Your task to perform on an android device: Check the weather Image 0: 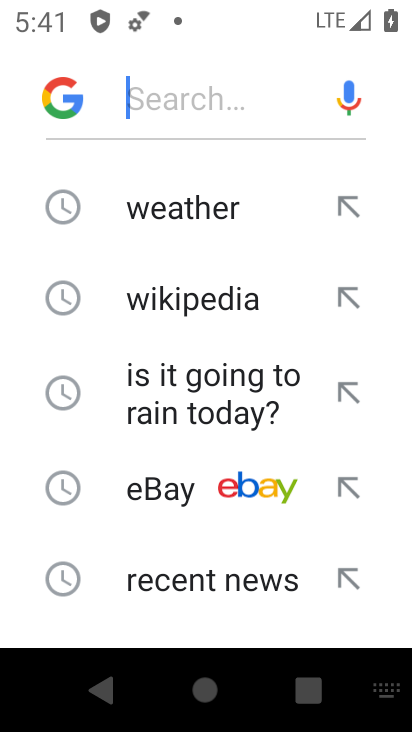
Step 0: press home button
Your task to perform on an android device: Check the weather Image 1: 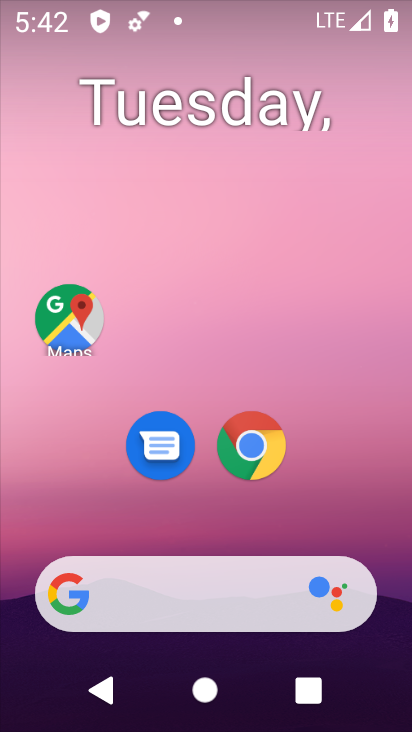
Step 1: drag from (321, 526) to (351, 8)
Your task to perform on an android device: Check the weather Image 2: 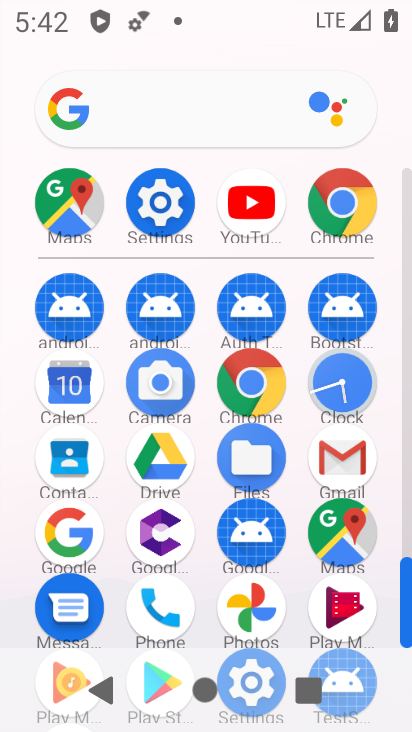
Step 2: click (334, 201)
Your task to perform on an android device: Check the weather Image 3: 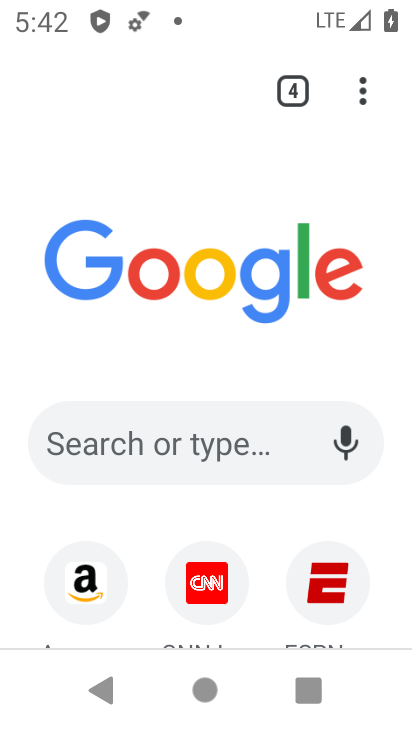
Step 3: click (84, 431)
Your task to perform on an android device: Check the weather Image 4: 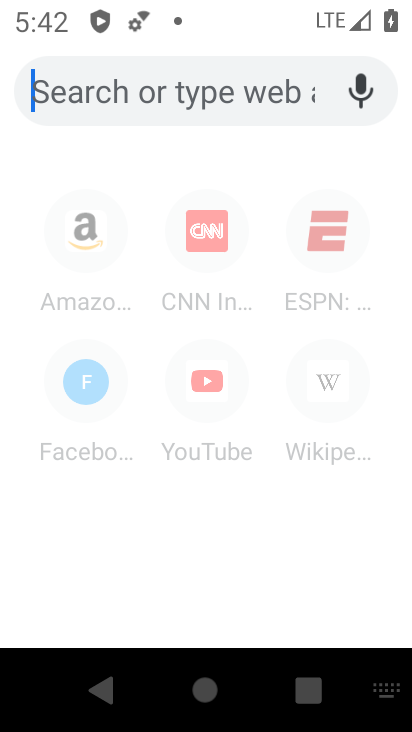
Step 4: type " weather"
Your task to perform on an android device: Check the weather Image 5: 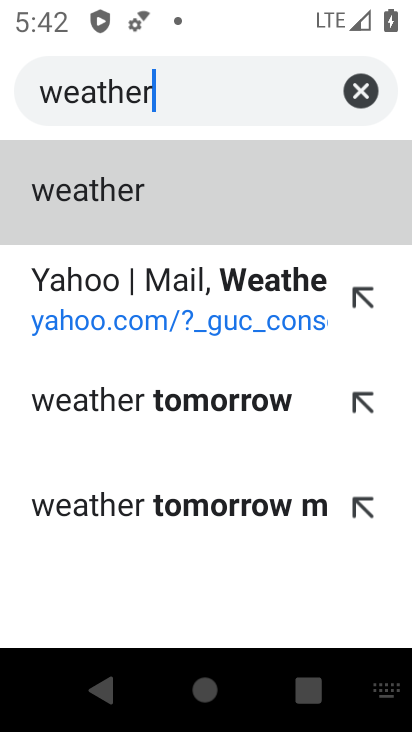
Step 5: click (139, 187)
Your task to perform on an android device: Check the weather Image 6: 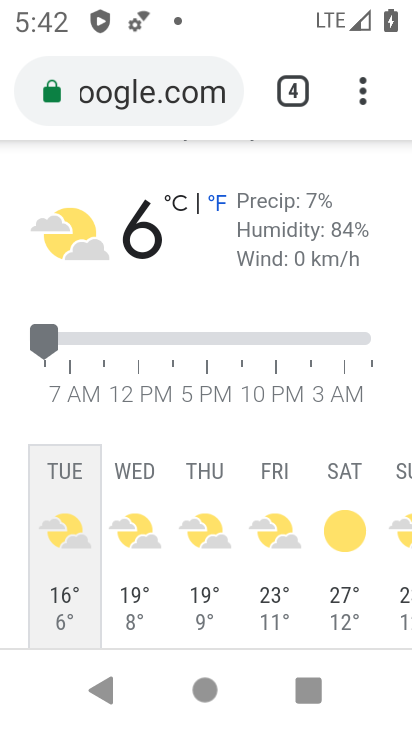
Step 6: task complete